Your task to perform on an android device: Open the web browser Image 0: 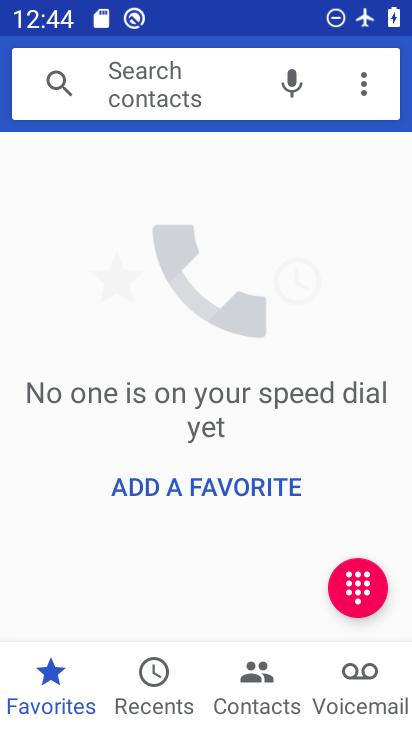
Step 0: press home button
Your task to perform on an android device: Open the web browser Image 1: 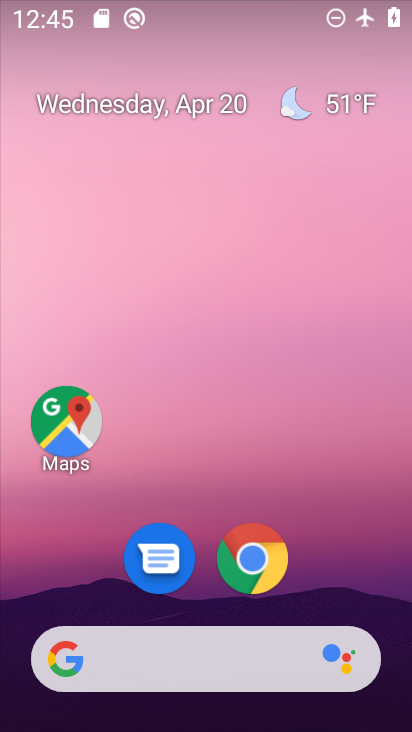
Step 1: click (250, 558)
Your task to perform on an android device: Open the web browser Image 2: 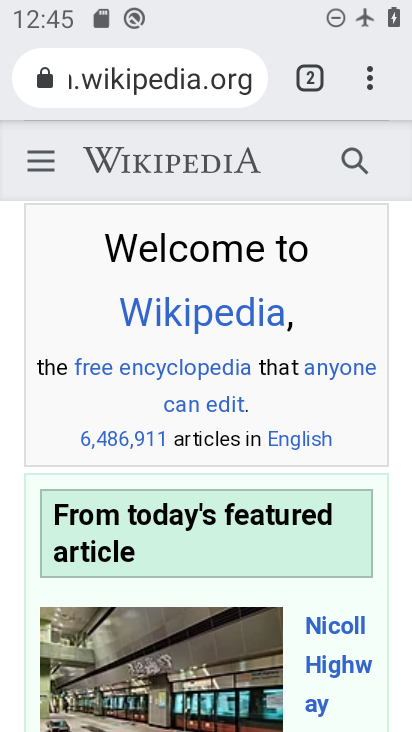
Step 2: click (366, 76)
Your task to perform on an android device: Open the web browser Image 3: 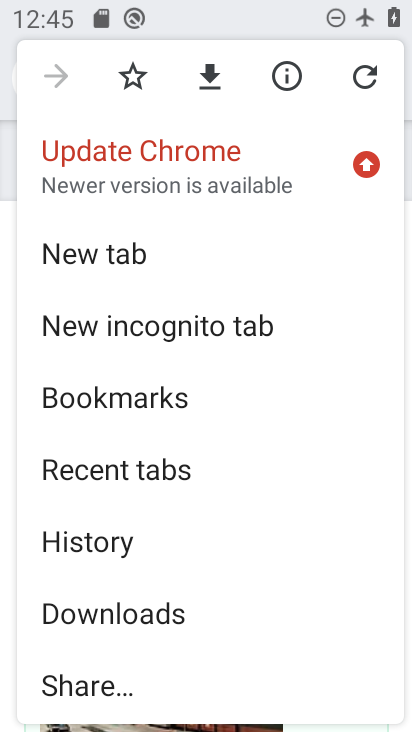
Step 3: click (97, 262)
Your task to perform on an android device: Open the web browser Image 4: 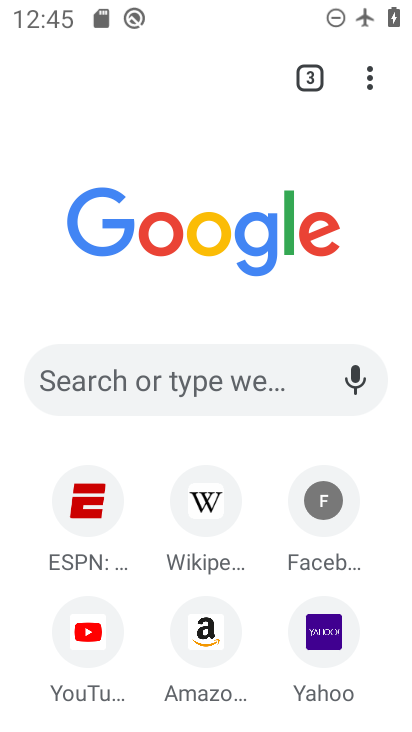
Step 4: task complete